Your task to perform on an android device: Open Google Chrome and open the bookmarks view Image 0: 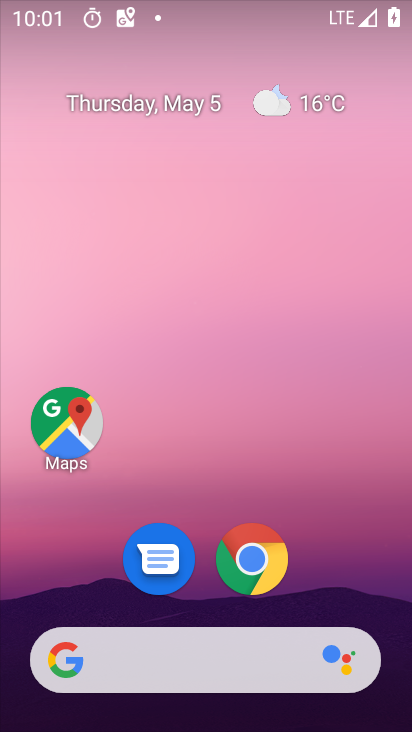
Step 0: click (256, 569)
Your task to perform on an android device: Open Google Chrome and open the bookmarks view Image 1: 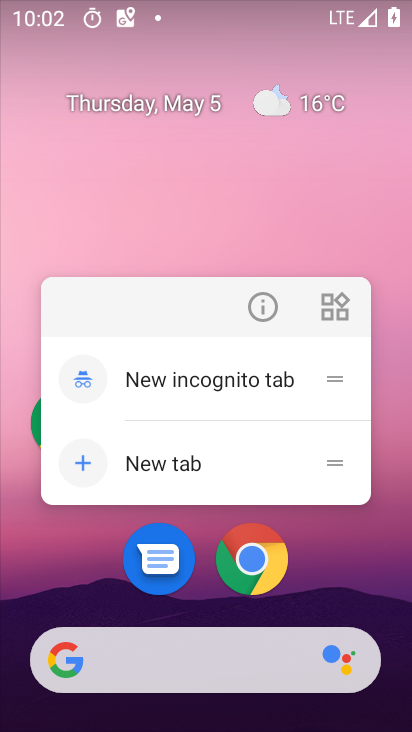
Step 1: click (263, 550)
Your task to perform on an android device: Open Google Chrome and open the bookmarks view Image 2: 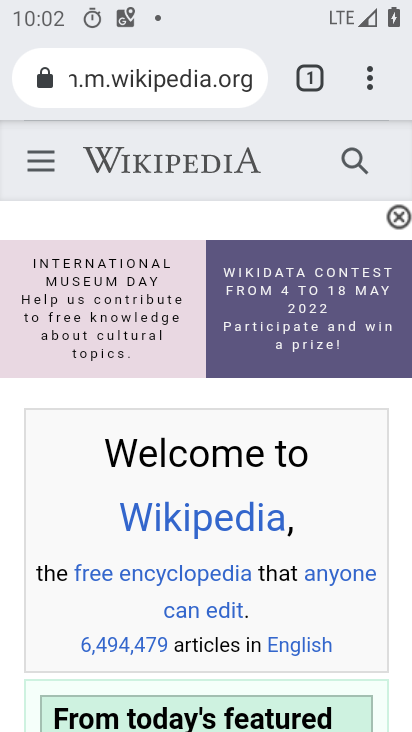
Step 2: click (361, 80)
Your task to perform on an android device: Open Google Chrome and open the bookmarks view Image 3: 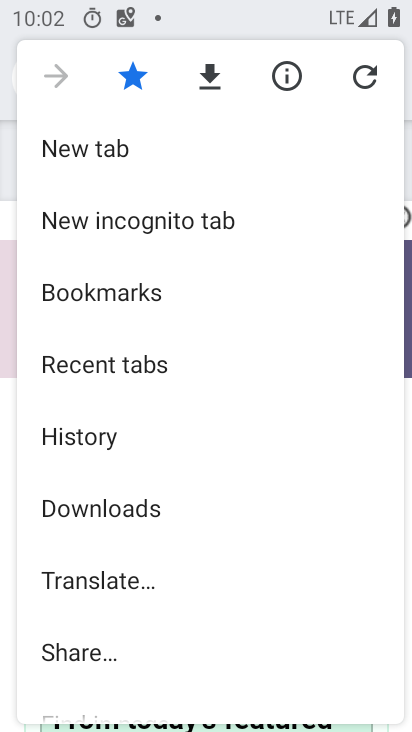
Step 3: click (137, 296)
Your task to perform on an android device: Open Google Chrome and open the bookmarks view Image 4: 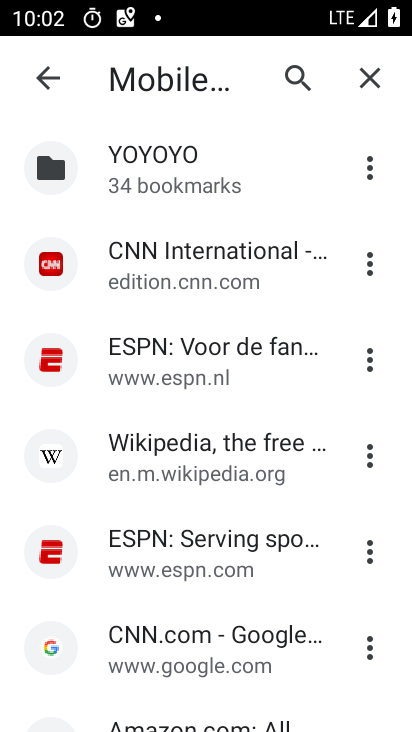
Step 4: task complete